Your task to perform on an android device: Show me productivity apps on the Play Store Image 0: 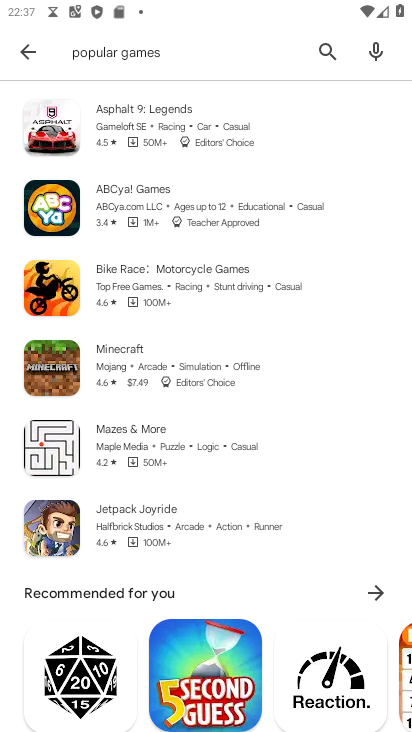
Step 0: press back button
Your task to perform on an android device: Show me productivity apps on the Play Store Image 1: 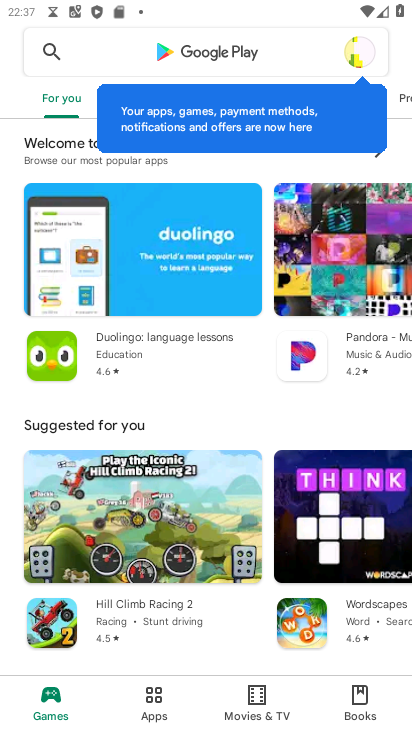
Step 1: press back button
Your task to perform on an android device: Show me productivity apps on the Play Store Image 2: 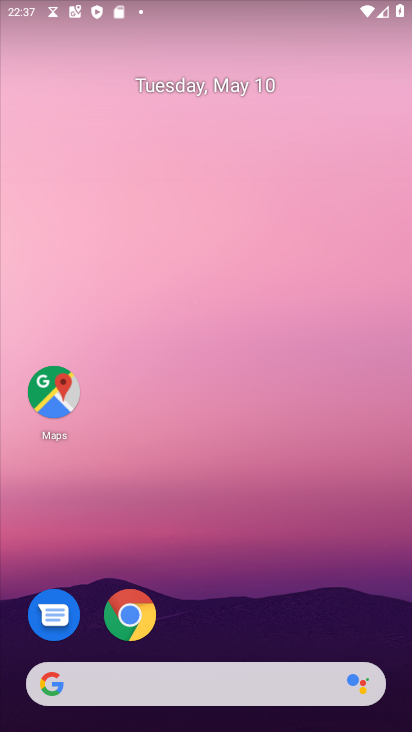
Step 2: drag from (281, 569) to (262, 157)
Your task to perform on an android device: Show me productivity apps on the Play Store Image 3: 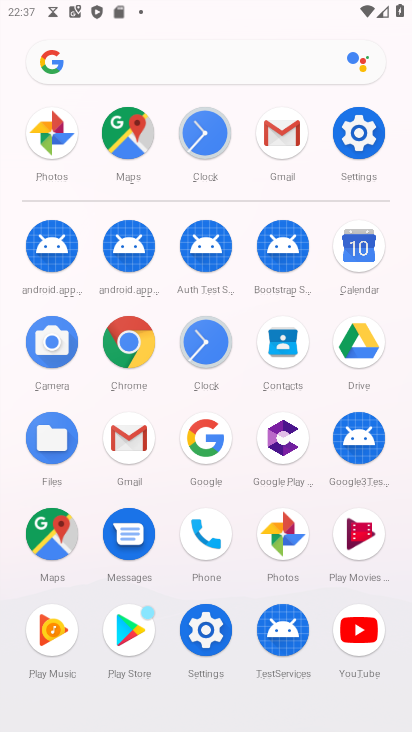
Step 3: click (134, 625)
Your task to perform on an android device: Show me productivity apps on the Play Store Image 4: 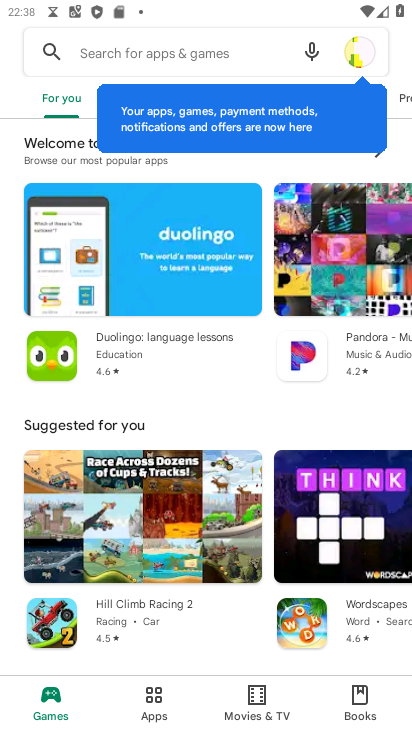
Step 4: click (153, 698)
Your task to perform on an android device: Show me productivity apps on the Play Store Image 5: 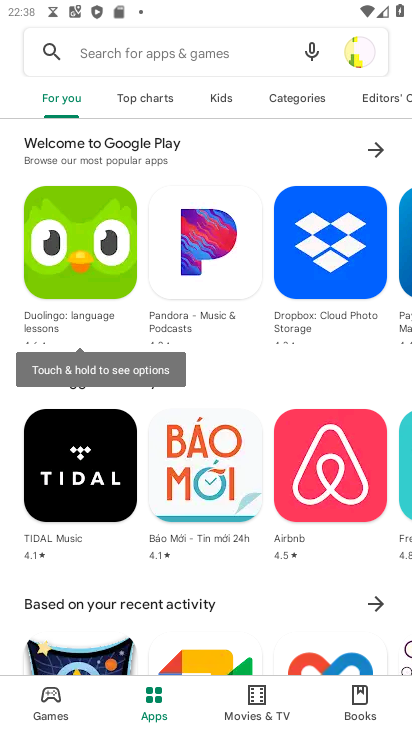
Step 5: click (303, 98)
Your task to perform on an android device: Show me productivity apps on the Play Store Image 6: 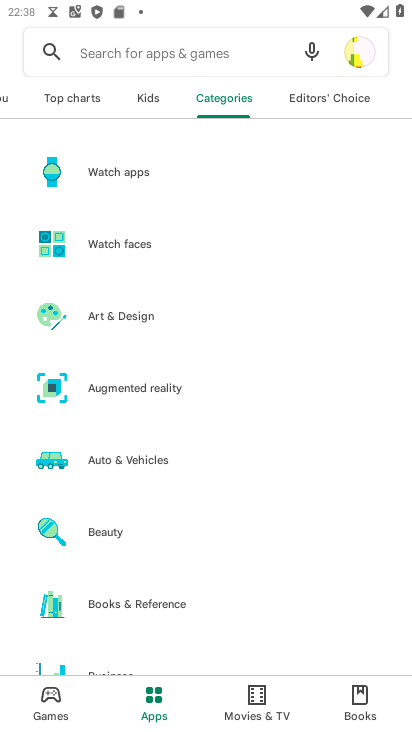
Step 6: drag from (149, 429) to (158, 346)
Your task to perform on an android device: Show me productivity apps on the Play Store Image 7: 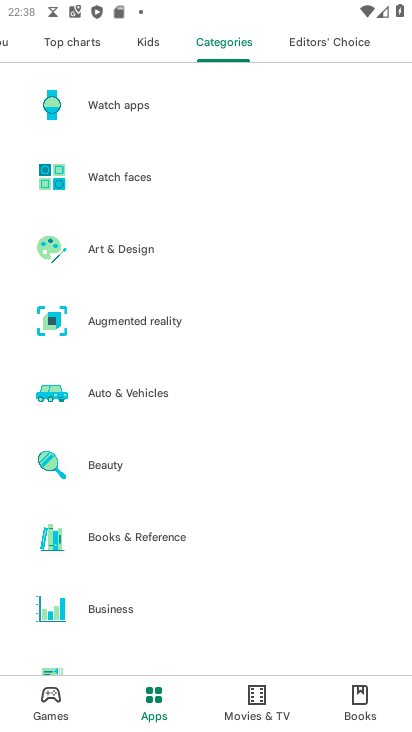
Step 7: drag from (129, 486) to (159, 342)
Your task to perform on an android device: Show me productivity apps on the Play Store Image 8: 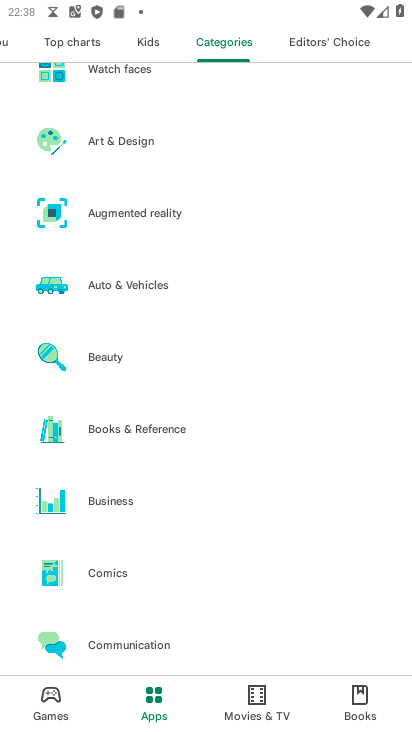
Step 8: drag from (98, 465) to (204, 278)
Your task to perform on an android device: Show me productivity apps on the Play Store Image 9: 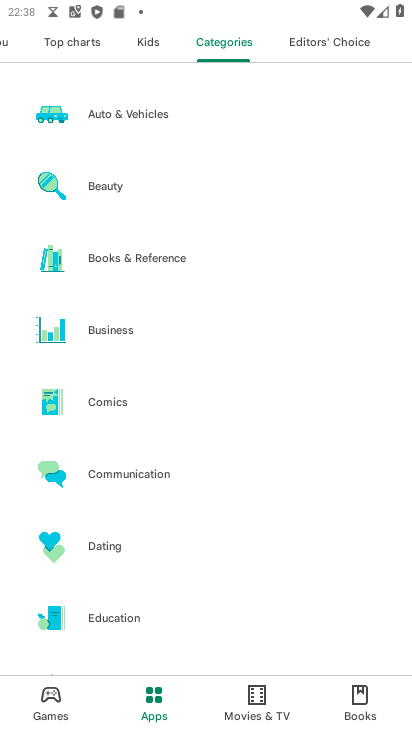
Step 9: drag from (97, 507) to (209, 358)
Your task to perform on an android device: Show me productivity apps on the Play Store Image 10: 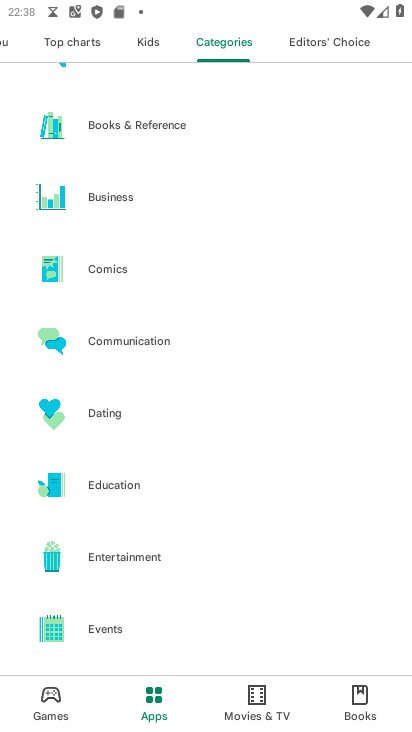
Step 10: drag from (104, 516) to (209, 383)
Your task to perform on an android device: Show me productivity apps on the Play Store Image 11: 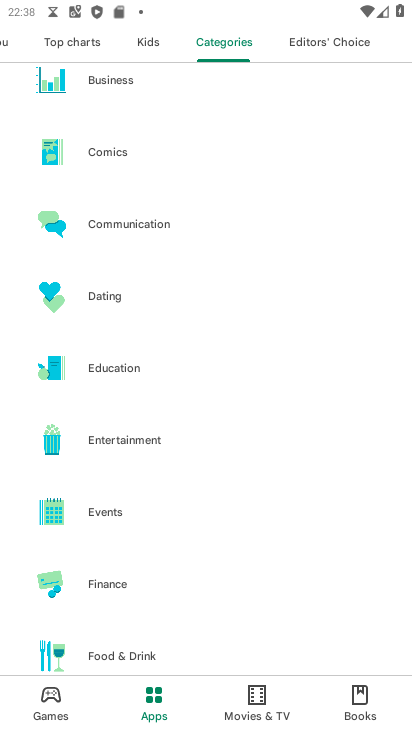
Step 11: drag from (110, 482) to (205, 345)
Your task to perform on an android device: Show me productivity apps on the Play Store Image 12: 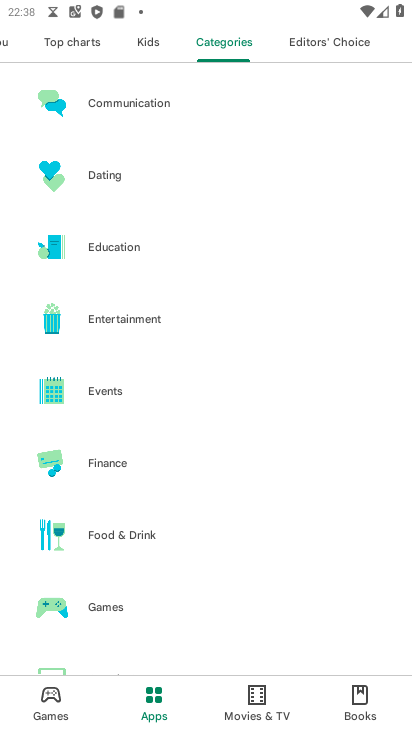
Step 12: drag from (98, 431) to (186, 290)
Your task to perform on an android device: Show me productivity apps on the Play Store Image 13: 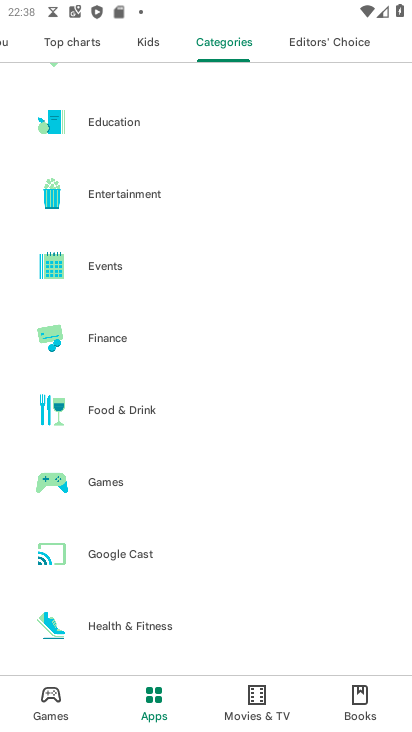
Step 13: drag from (84, 376) to (150, 256)
Your task to perform on an android device: Show me productivity apps on the Play Store Image 14: 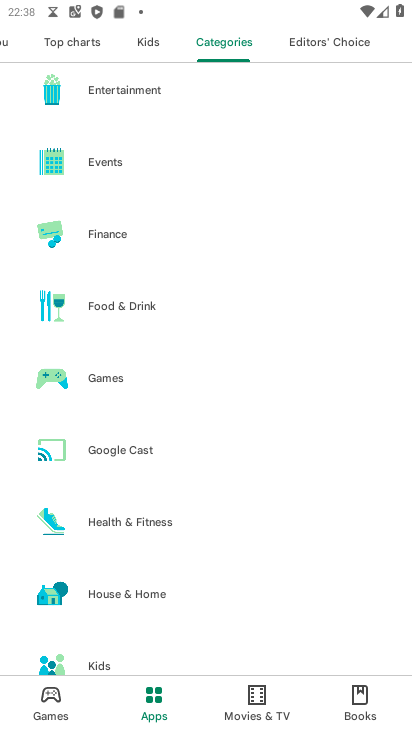
Step 14: drag from (87, 345) to (159, 232)
Your task to perform on an android device: Show me productivity apps on the Play Store Image 15: 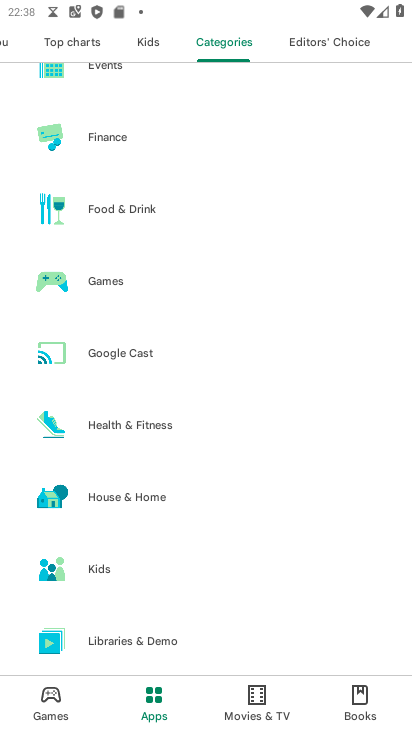
Step 15: drag from (89, 385) to (148, 274)
Your task to perform on an android device: Show me productivity apps on the Play Store Image 16: 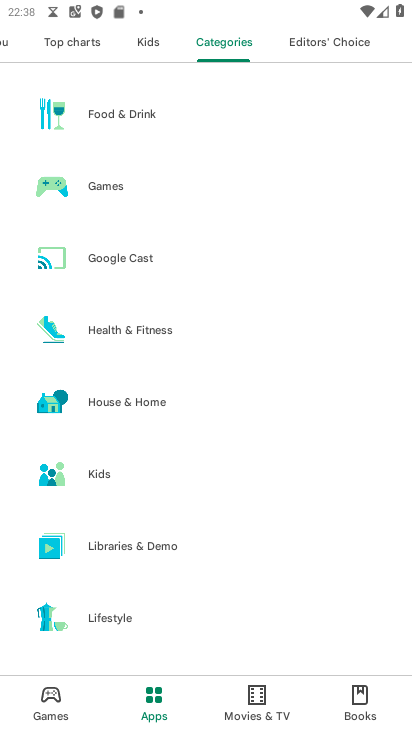
Step 16: drag from (77, 365) to (135, 264)
Your task to perform on an android device: Show me productivity apps on the Play Store Image 17: 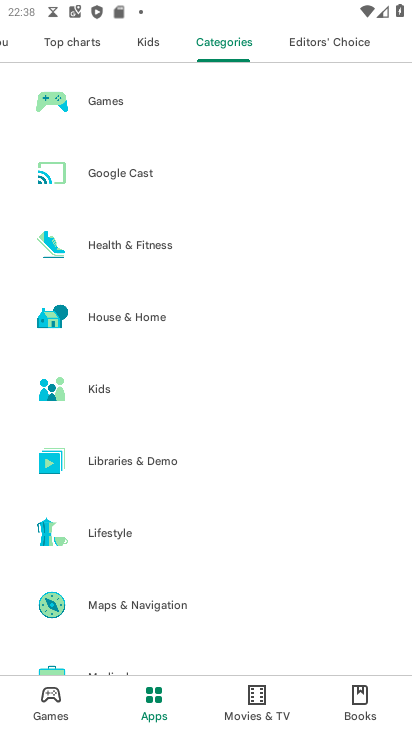
Step 17: drag from (86, 357) to (158, 259)
Your task to perform on an android device: Show me productivity apps on the Play Store Image 18: 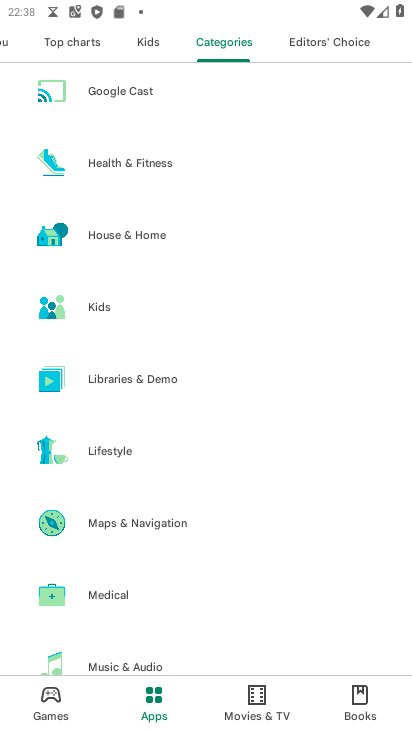
Step 18: drag from (81, 341) to (167, 209)
Your task to perform on an android device: Show me productivity apps on the Play Store Image 19: 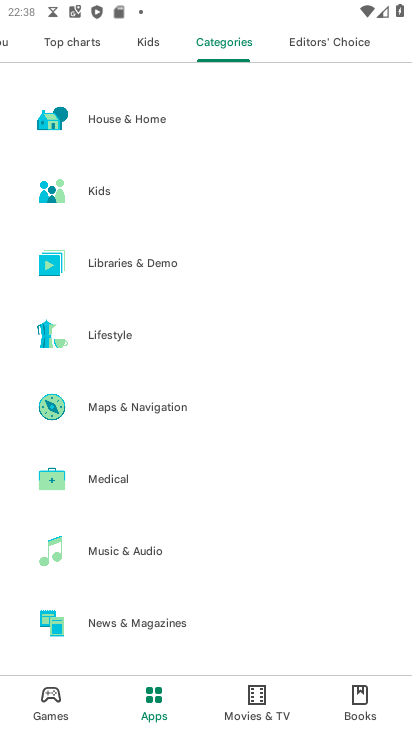
Step 19: drag from (74, 299) to (145, 186)
Your task to perform on an android device: Show me productivity apps on the Play Store Image 20: 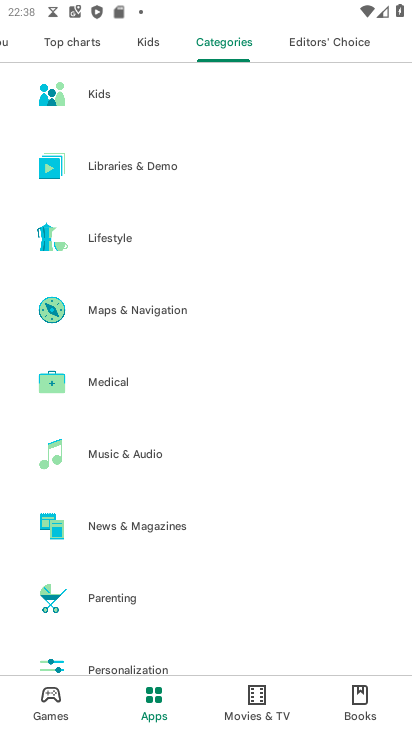
Step 20: drag from (59, 340) to (109, 244)
Your task to perform on an android device: Show me productivity apps on the Play Store Image 21: 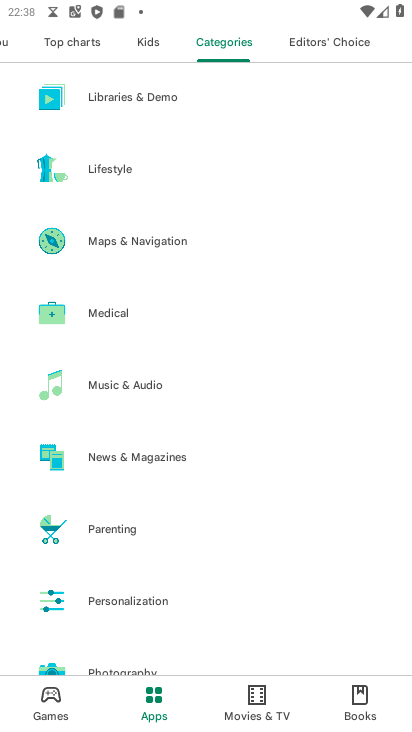
Step 21: drag from (69, 344) to (141, 228)
Your task to perform on an android device: Show me productivity apps on the Play Store Image 22: 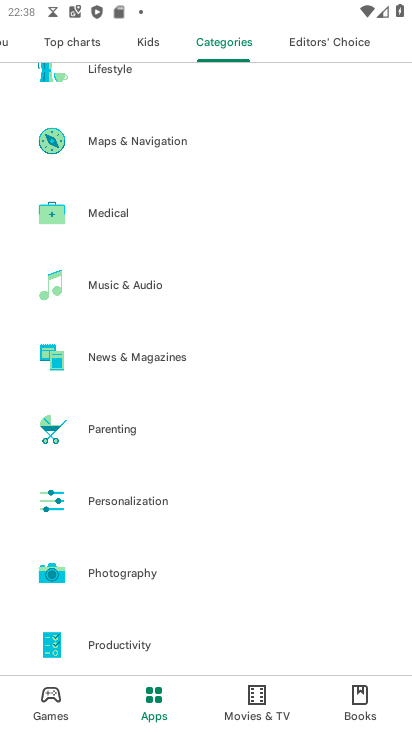
Step 22: drag from (67, 386) to (107, 265)
Your task to perform on an android device: Show me productivity apps on the Play Store Image 23: 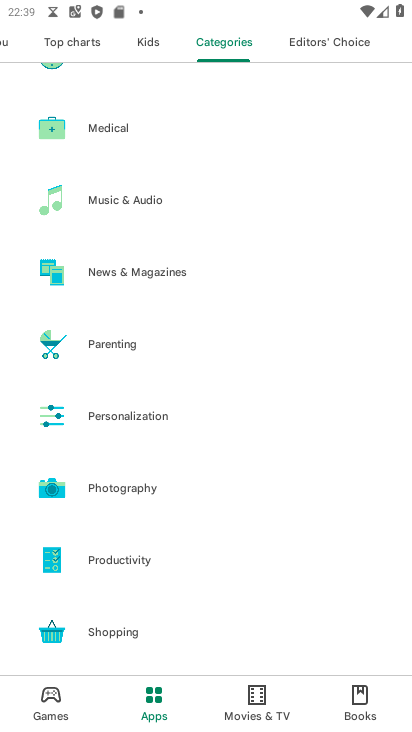
Step 23: click (122, 560)
Your task to perform on an android device: Show me productivity apps on the Play Store Image 24: 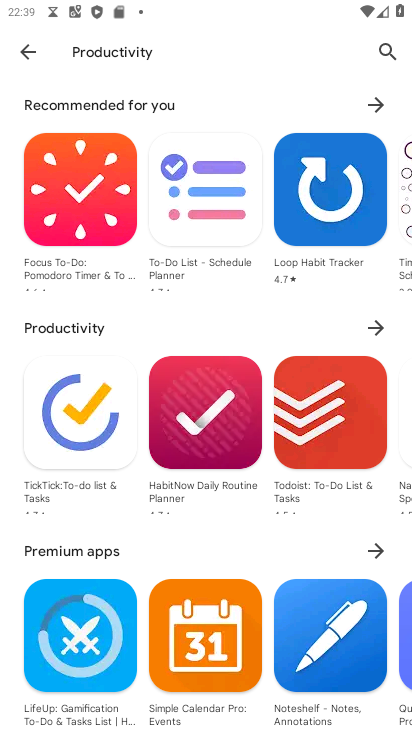
Step 24: task complete